Your task to perform on an android device: toggle show notifications on the lock screen Image 0: 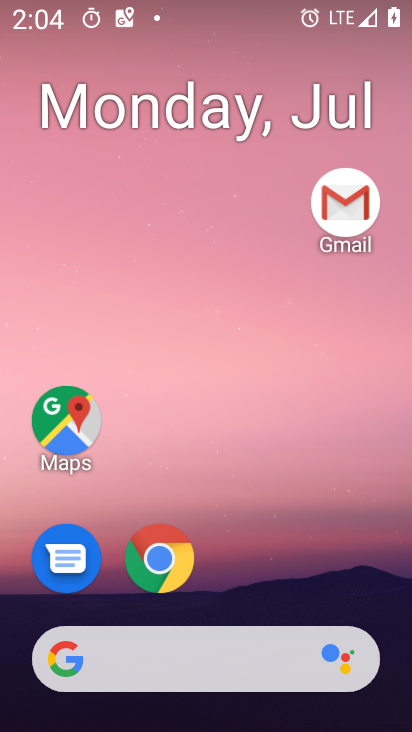
Step 0: drag from (363, 524) to (364, 165)
Your task to perform on an android device: toggle show notifications on the lock screen Image 1: 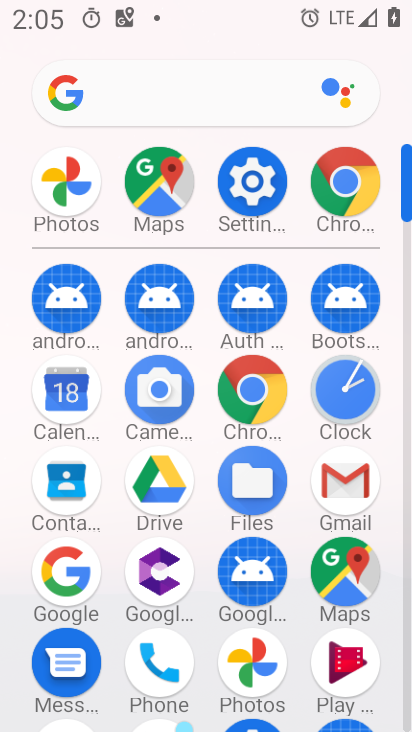
Step 1: click (259, 192)
Your task to perform on an android device: toggle show notifications on the lock screen Image 2: 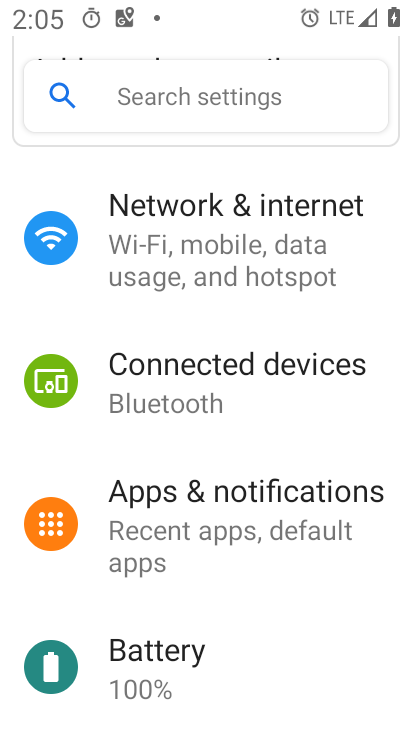
Step 2: drag from (346, 552) to (340, 424)
Your task to perform on an android device: toggle show notifications on the lock screen Image 3: 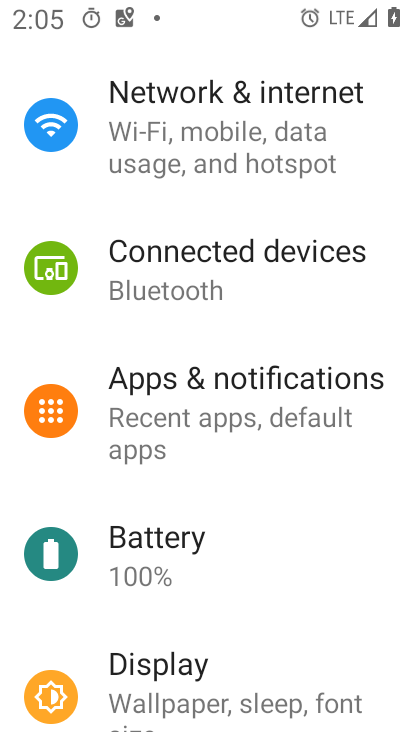
Step 3: drag from (341, 553) to (349, 419)
Your task to perform on an android device: toggle show notifications on the lock screen Image 4: 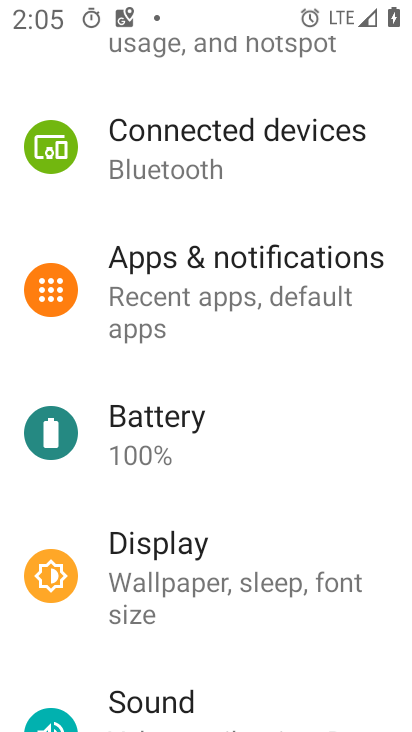
Step 4: drag from (353, 628) to (344, 468)
Your task to perform on an android device: toggle show notifications on the lock screen Image 5: 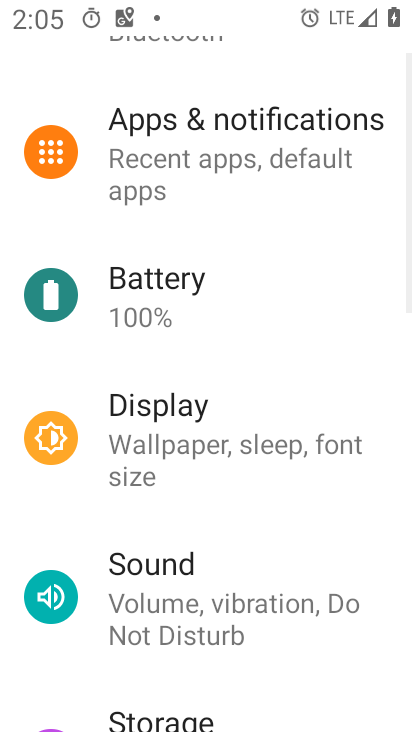
Step 5: drag from (341, 532) to (339, 434)
Your task to perform on an android device: toggle show notifications on the lock screen Image 6: 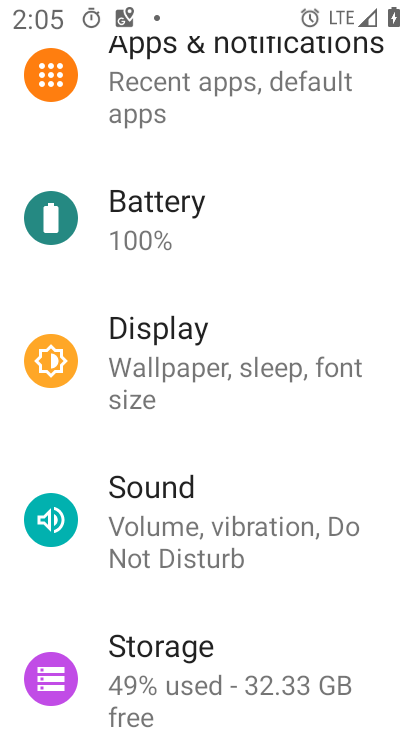
Step 6: drag from (325, 517) to (318, 373)
Your task to perform on an android device: toggle show notifications on the lock screen Image 7: 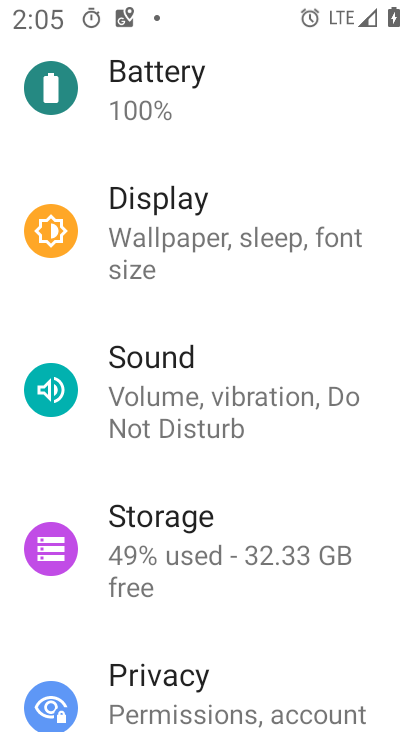
Step 7: drag from (318, 270) to (324, 488)
Your task to perform on an android device: toggle show notifications on the lock screen Image 8: 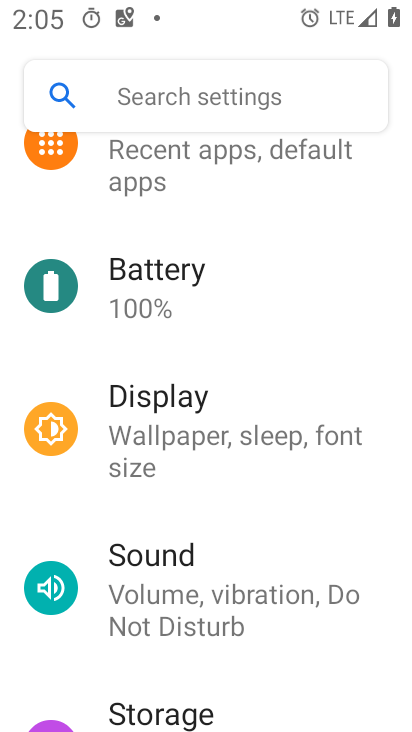
Step 8: drag from (299, 243) to (299, 390)
Your task to perform on an android device: toggle show notifications on the lock screen Image 9: 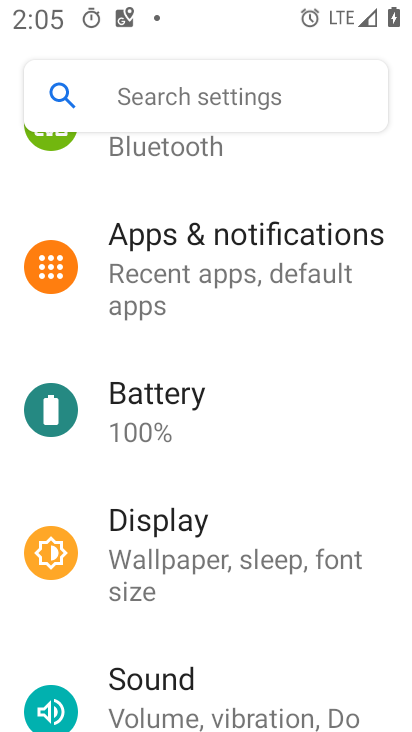
Step 9: drag from (297, 349) to (298, 483)
Your task to perform on an android device: toggle show notifications on the lock screen Image 10: 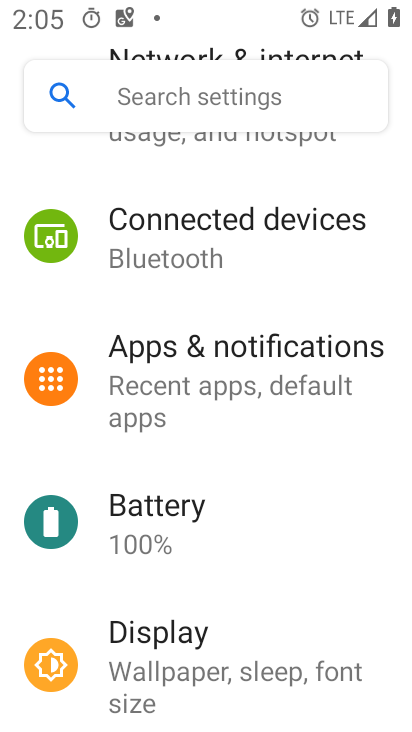
Step 10: click (279, 367)
Your task to perform on an android device: toggle show notifications on the lock screen Image 11: 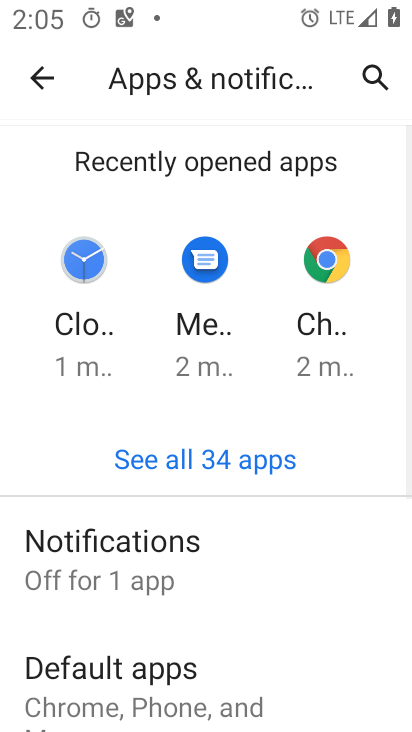
Step 11: click (211, 556)
Your task to perform on an android device: toggle show notifications on the lock screen Image 12: 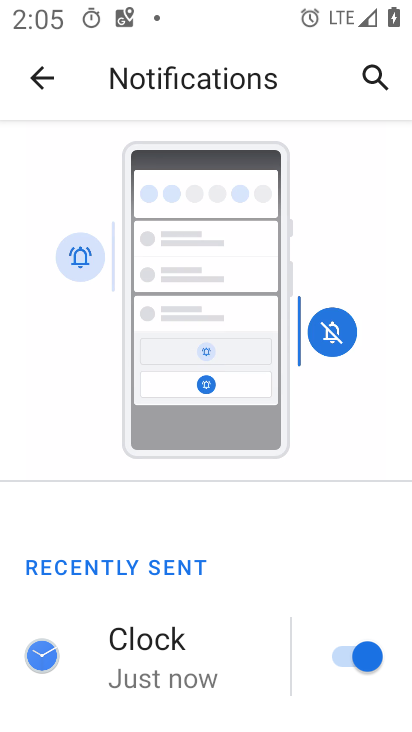
Step 12: drag from (239, 568) to (250, 444)
Your task to perform on an android device: toggle show notifications on the lock screen Image 13: 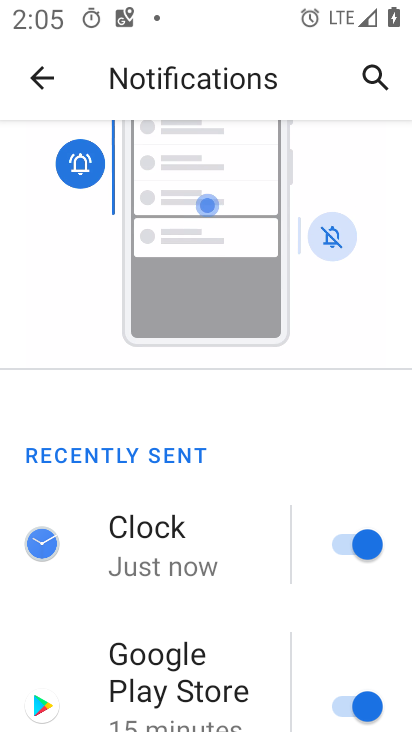
Step 13: drag from (264, 574) to (252, 466)
Your task to perform on an android device: toggle show notifications on the lock screen Image 14: 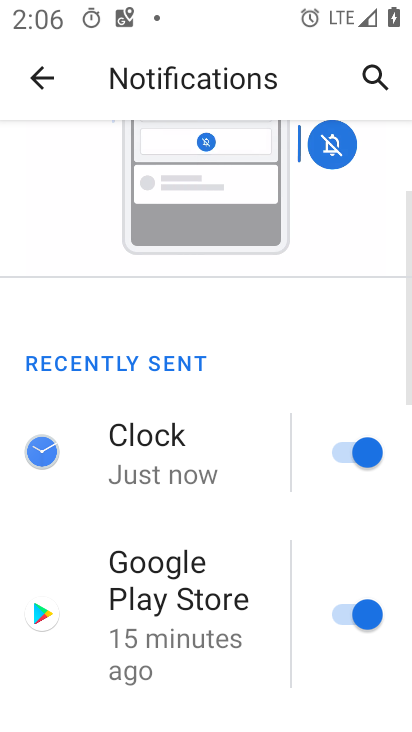
Step 14: drag from (261, 615) to (256, 498)
Your task to perform on an android device: toggle show notifications on the lock screen Image 15: 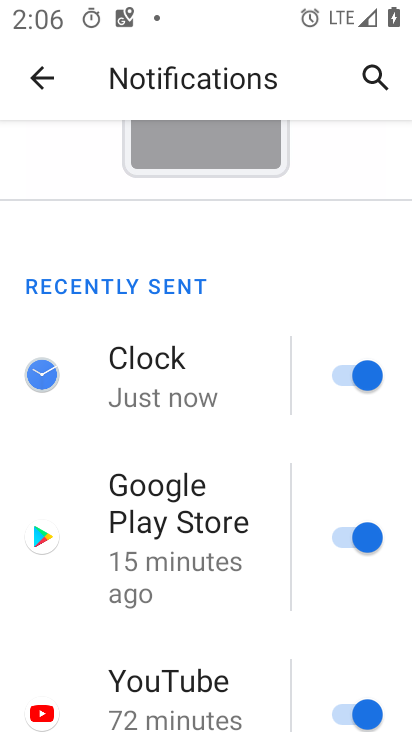
Step 15: drag from (257, 617) to (258, 459)
Your task to perform on an android device: toggle show notifications on the lock screen Image 16: 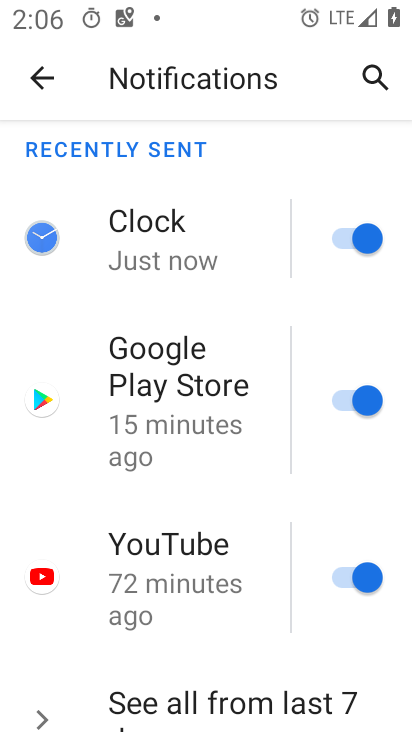
Step 16: drag from (258, 575) to (256, 470)
Your task to perform on an android device: toggle show notifications on the lock screen Image 17: 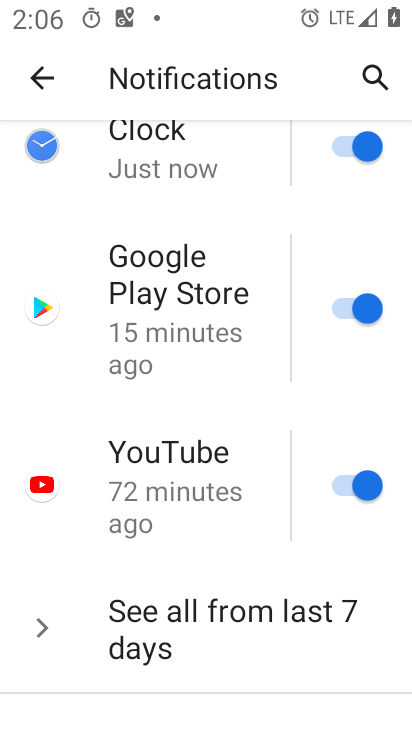
Step 17: drag from (253, 600) to (256, 482)
Your task to perform on an android device: toggle show notifications on the lock screen Image 18: 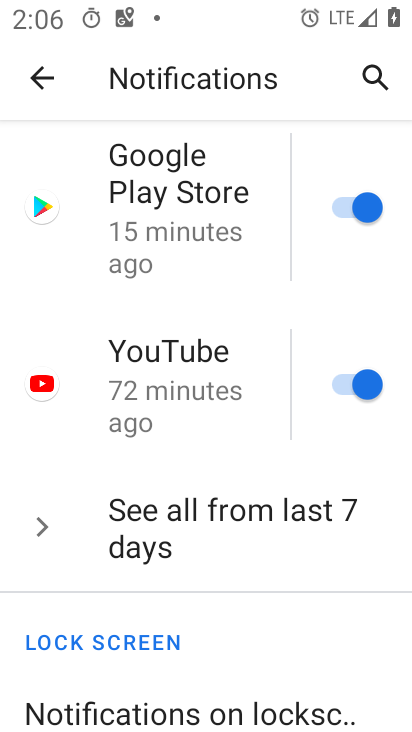
Step 18: drag from (260, 582) to (262, 454)
Your task to perform on an android device: toggle show notifications on the lock screen Image 19: 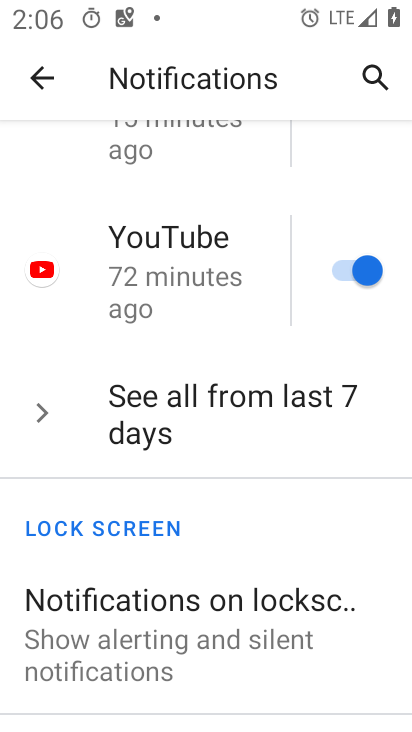
Step 19: drag from (259, 599) to (251, 441)
Your task to perform on an android device: toggle show notifications on the lock screen Image 20: 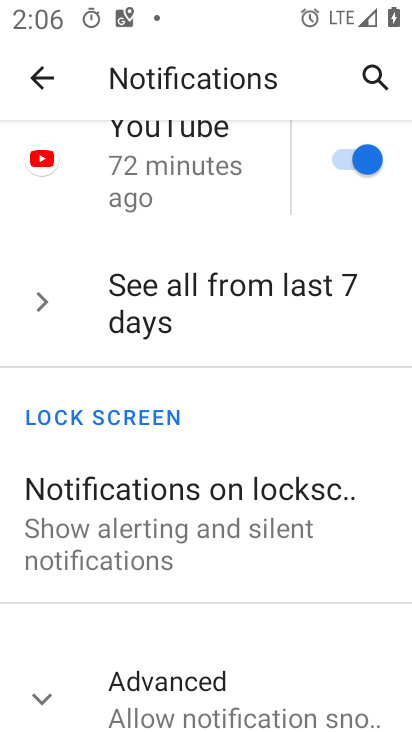
Step 20: click (262, 523)
Your task to perform on an android device: toggle show notifications on the lock screen Image 21: 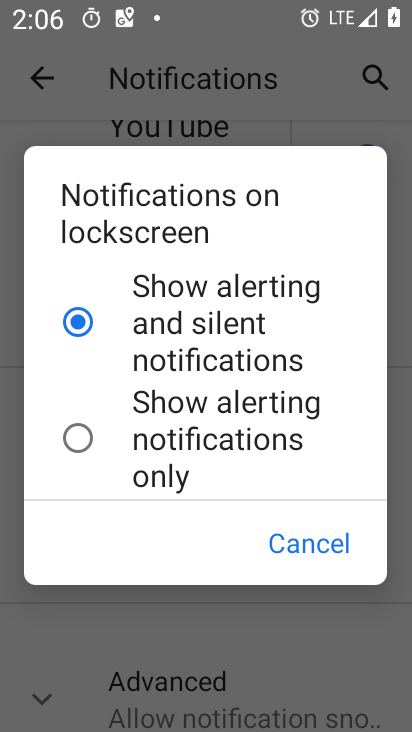
Step 21: click (208, 437)
Your task to perform on an android device: toggle show notifications on the lock screen Image 22: 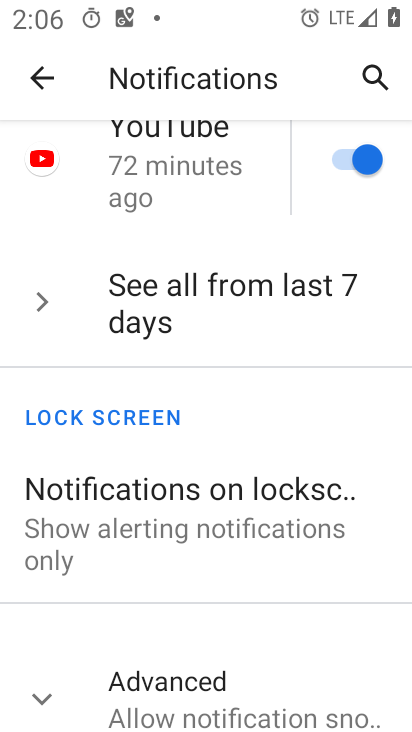
Step 22: task complete